Your task to perform on an android device: search for starred emails in the gmail app Image 0: 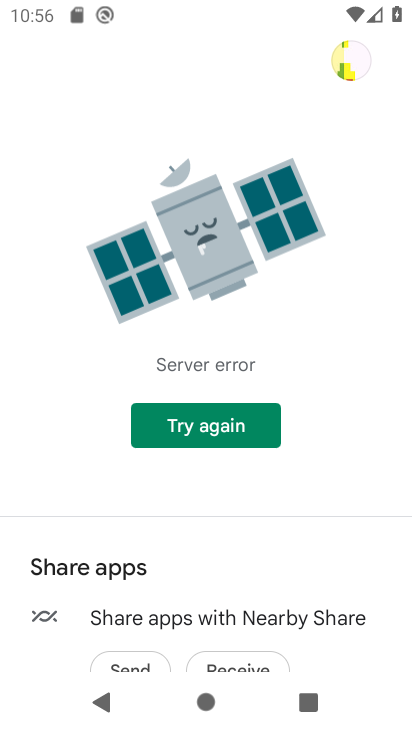
Step 0: press home button
Your task to perform on an android device: search for starred emails in the gmail app Image 1: 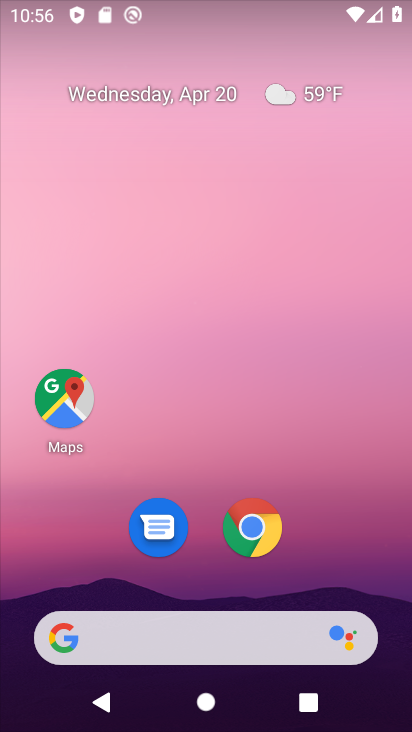
Step 1: drag from (355, 524) to (313, 137)
Your task to perform on an android device: search for starred emails in the gmail app Image 2: 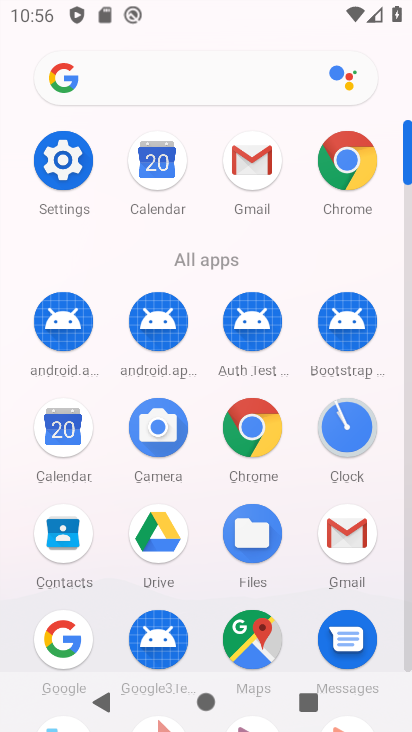
Step 2: click (355, 542)
Your task to perform on an android device: search for starred emails in the gmail app Image 3: 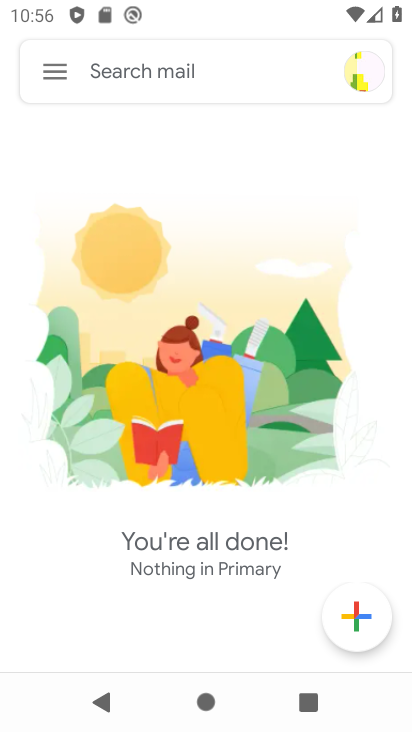
Step 3: click (53, 77)
Your task to perform on an android device: search for starred emails in the gmail app Image 4: 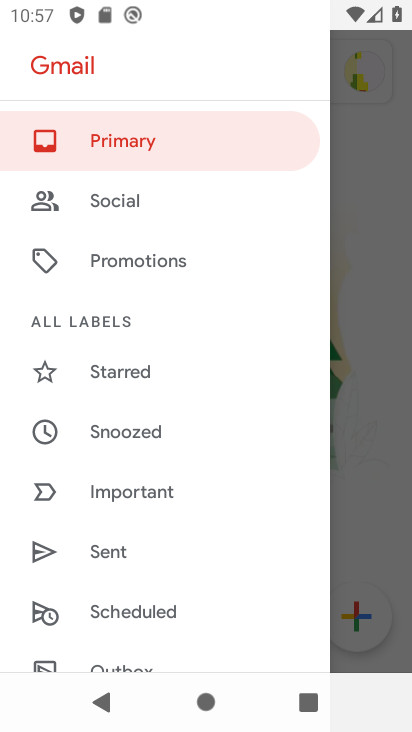
Step 4: click (113, 383)
Your task to perform on an android device: search for starred emails in the gmail app Image 5: 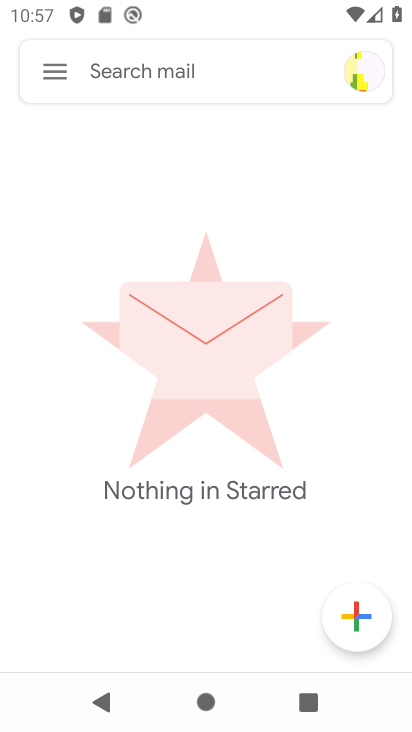
Step 5: task complete